Your task to perform on an android device: open chrome and create a bookmark for the current page Image 0: 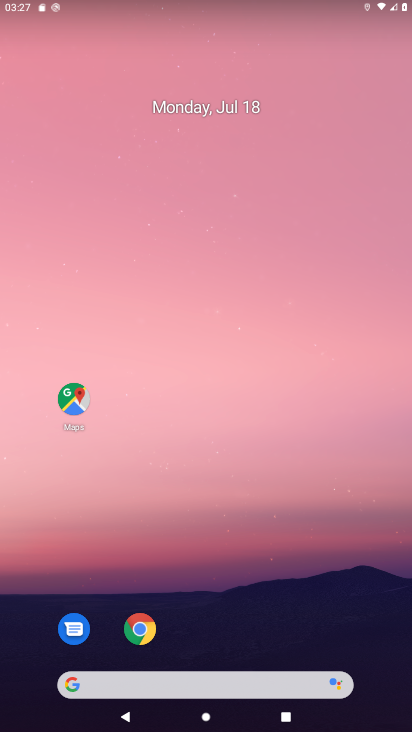
Step 0: drag from (360, 628) to (383, 124)
Your task to perform on an android device: open chrome and create a bookmark for the current page Image 1: 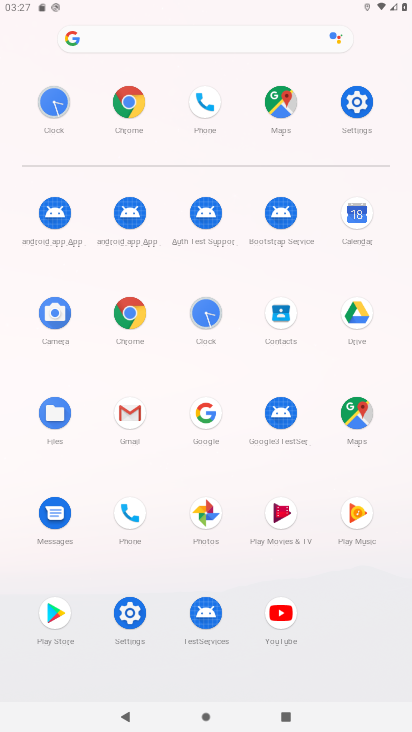
Step 1: click (134, 311)
Your task to perform on an android device: open chrome and create a bookmark for the current page Image 2: 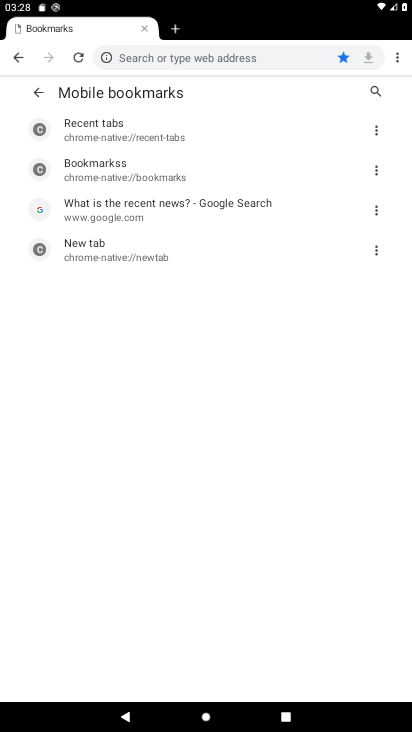
Step 2: task complete